Your task to perform on an android device: find photos in the google photos app Image 0: 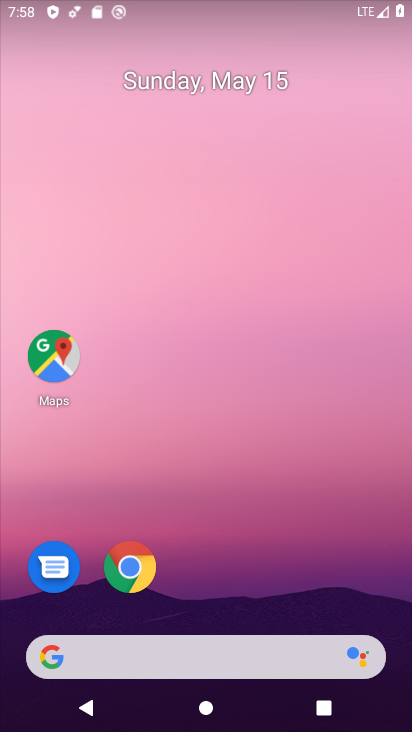
Step 0: drag from (210, 583) to (270, 73)
Your task to perform on an android device: find photos in the google photos app Image 1: 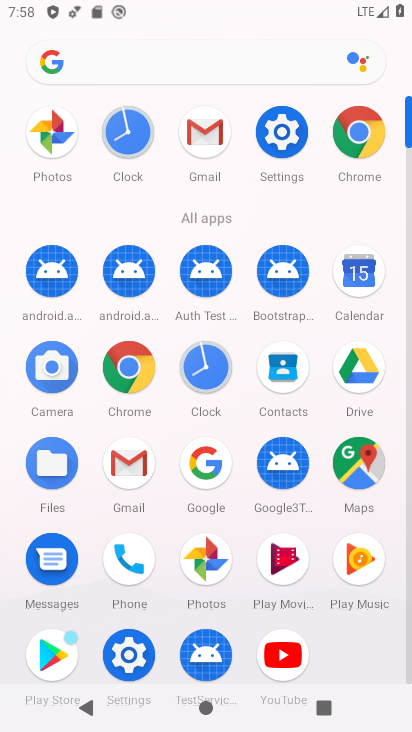
Step 1: click (211, 553)
Your task to perform on an android device: find photos in the google photos app Image 2: 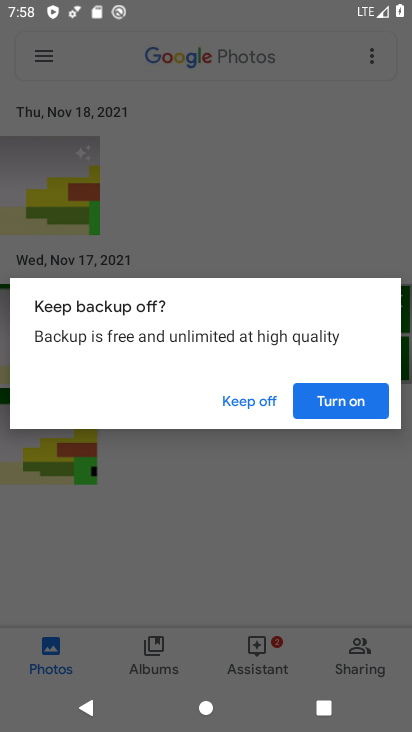
Step 2: click (232, 402)
Your task to perform on an android device: find photos in the google photos app Image 3: 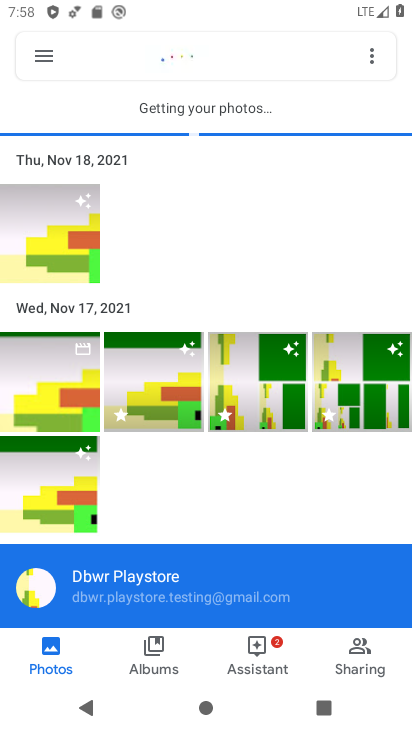
Step 3: task complete